Your task to perform on an android device: open app "YouTube Kids" (install if not already installed) Image 0: 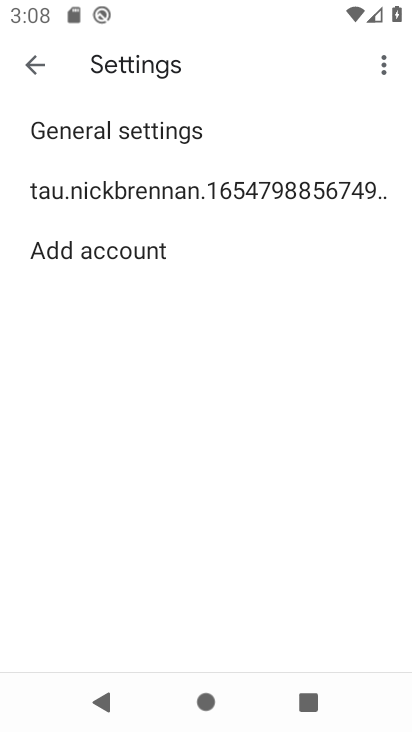
Step 0: press home button
Your task to perform on an android device: open app "YouTube Kids" (install if not already installed) Image 1: 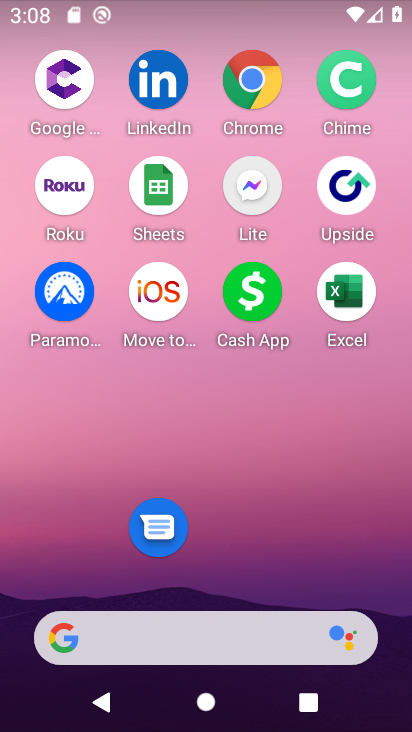
Step 1: drag from (216, 603) to (235, 126)
Your task to perform on an android device: open app "YouTube Kids" (install if not already installed) Image 2: 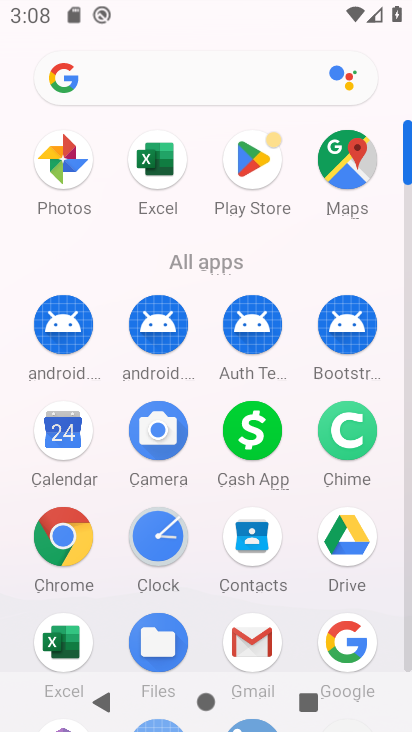
Step 2: click (245, 166)
Your task to perform on an android device: open app "YouTube Kids" (install if not already installed) Image 3: 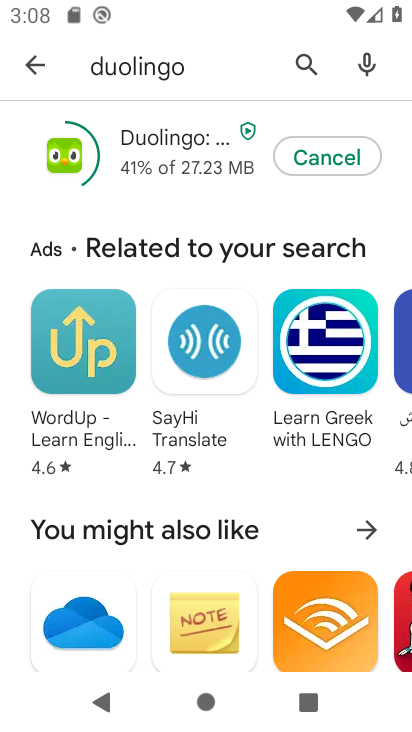
Step 3: click (290, 79)
Your task to perform on an android device: open app "YouTube Kids" (install if not already installed) Image 4: 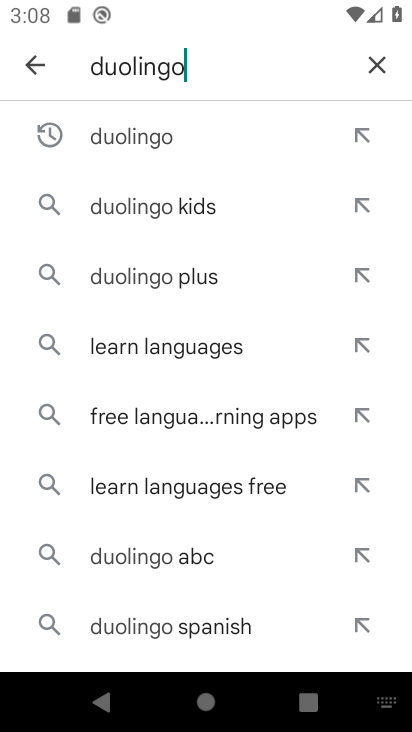
Step 4: click (374, 76)
Your task to perform on an android device: open app "YouTube Kids" (install if not already installed) Image 5: 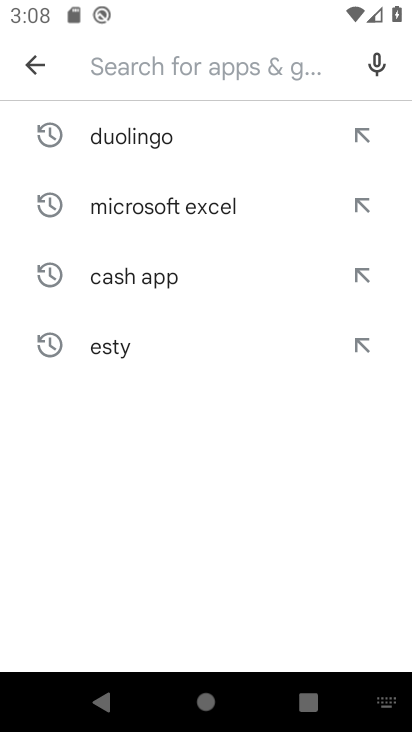
Step 5: type "youtube kid"
Your task to perform on an android device: open app "YouTube Kids" (install if not already installed) Image 6: 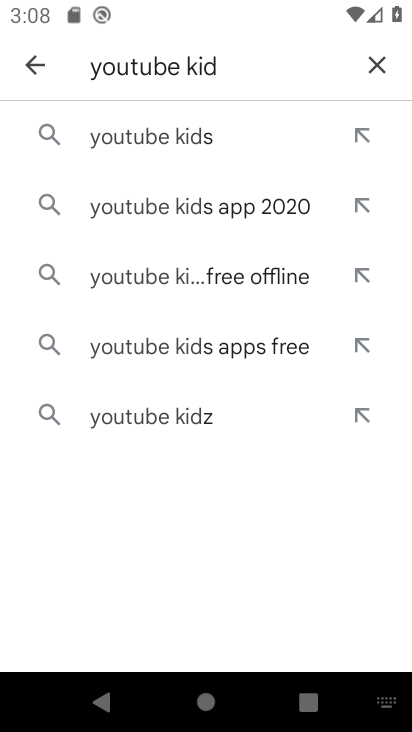
Step 6: click (170, 136)
Your task to perform on an android device: open app "YouTube Kids" (install if not already installed) Image 7: 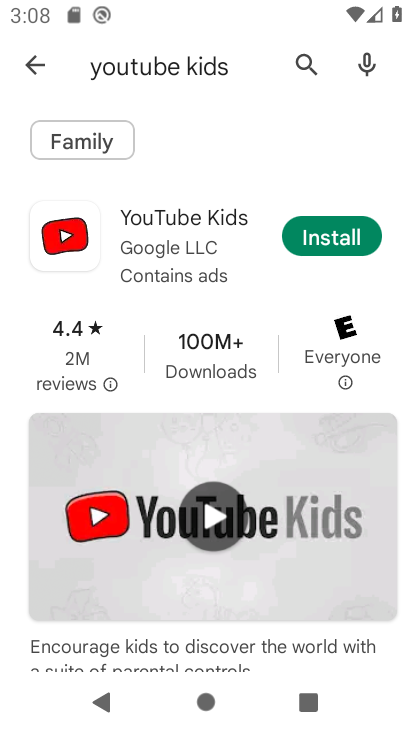
Step 7: click (304, 247)
Your task to perform on an android device: open app "YouTube Kids" (install if not already installed) Image 8: 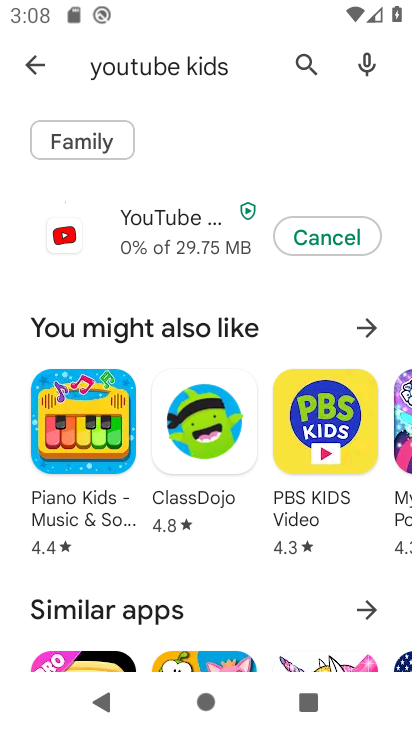
Step 8: task complete